Your task to perform on an android device: turn pop-ups on in chrome Image 0: 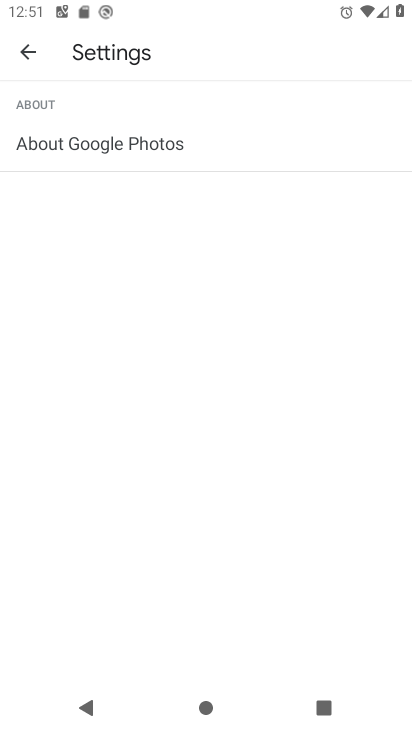
Step 0: press home button
Your task to perform on an android device: turn pop-ups on in chrome Image 1: 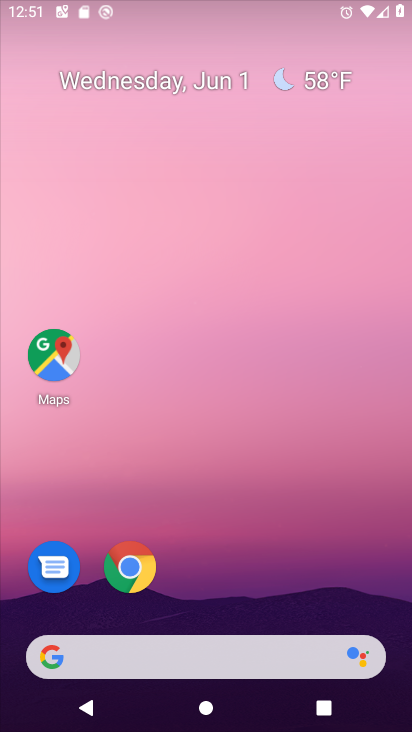
Step 1: click (126, 566)
Your task to perform on an android device: turn pop-ups on in chrome Image 2: 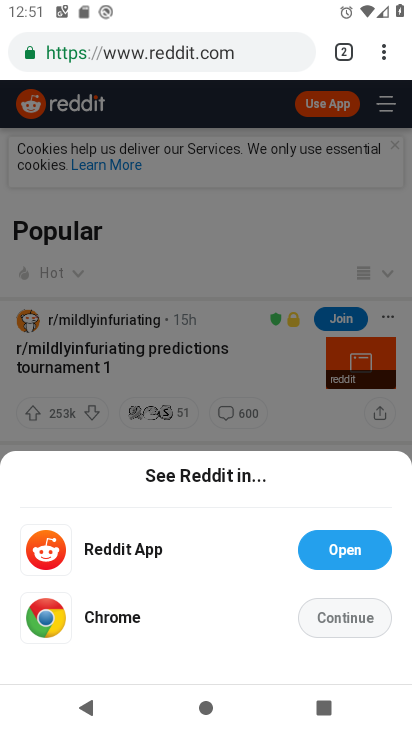
Step 2: click (371, 48)
Your task to perform on an android device: turn pop-ups on in chrome Image 3: 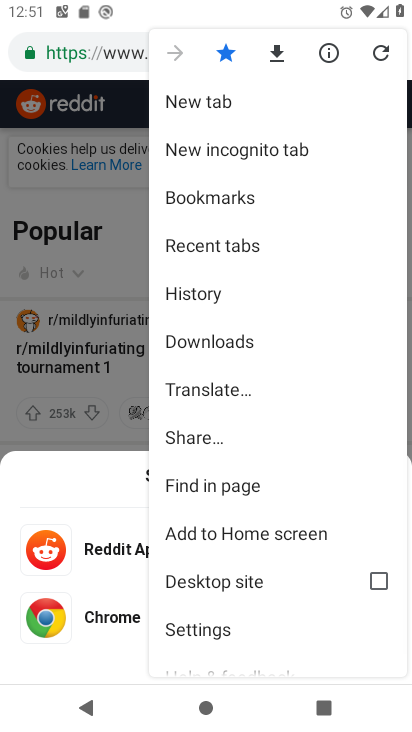
Step 3: click (222, 623)
Your task to perform on an android device: turn pop-ups on in chrome Image 4: 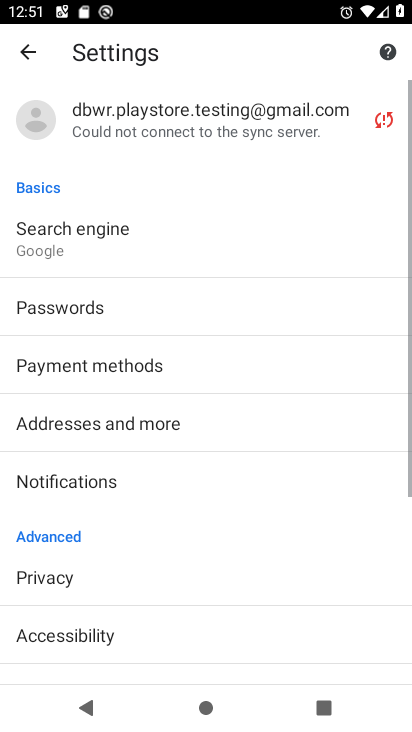
Step 4: drag from (126, 592) to (145, 267)
Your task to perform on an android device: turn pop-ups on in chrome Image 5: 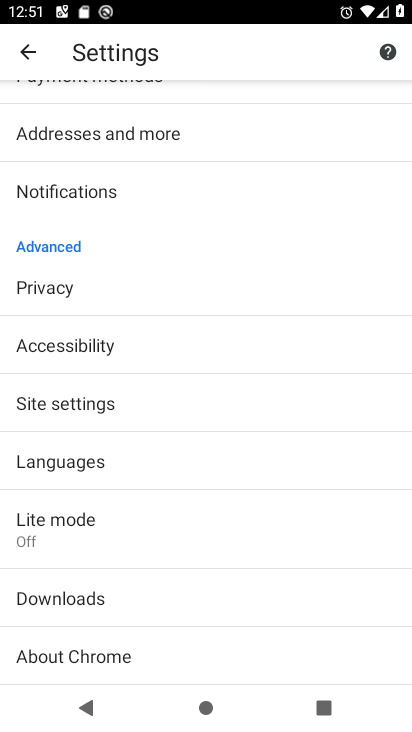
Step 5: click (78, 416)
Your task to perform on an android device: turn pop-ups on in chrome Image 6: 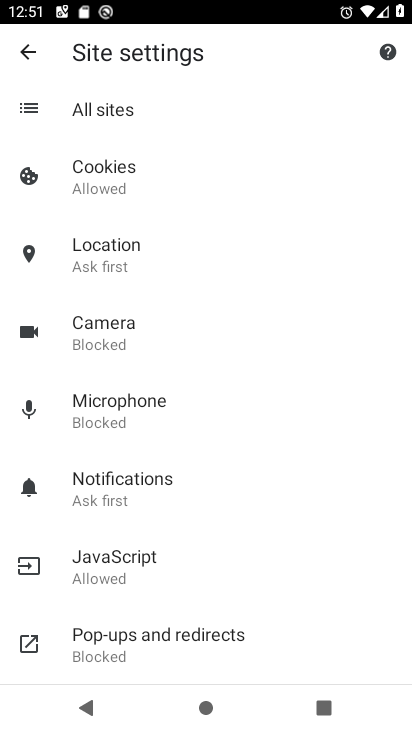
Step 6: click (134, 627)
Your task to perform on an android device: turn pop-ups on in chrome Image 7: 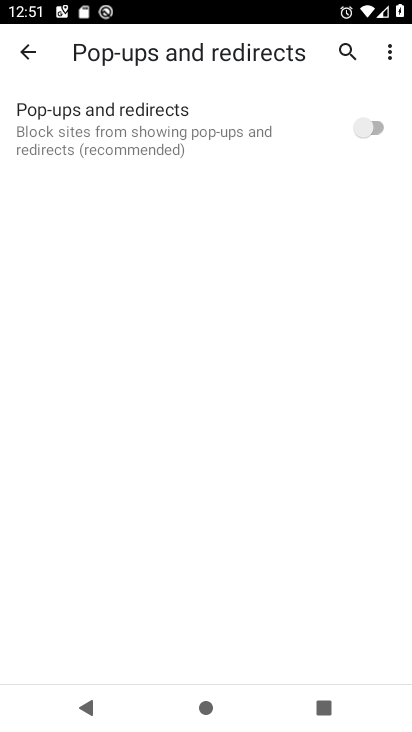
Step 7: click (379, 127)
Your task to perform on an android device: turn pop-ups on in chrome Image 8: 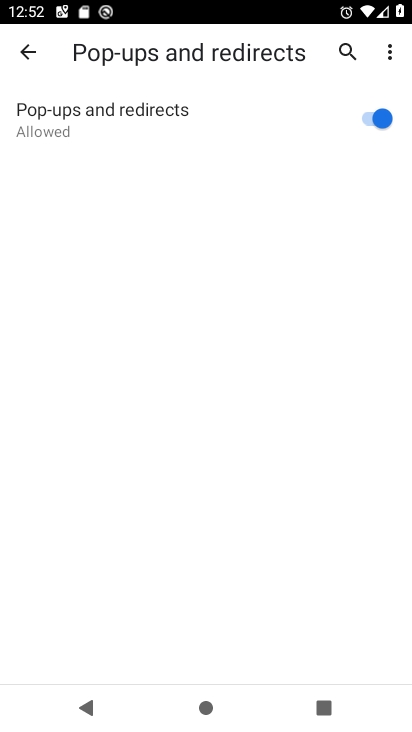
Step 8: task complete